Your task to perform on an android device: check storage Image 0: 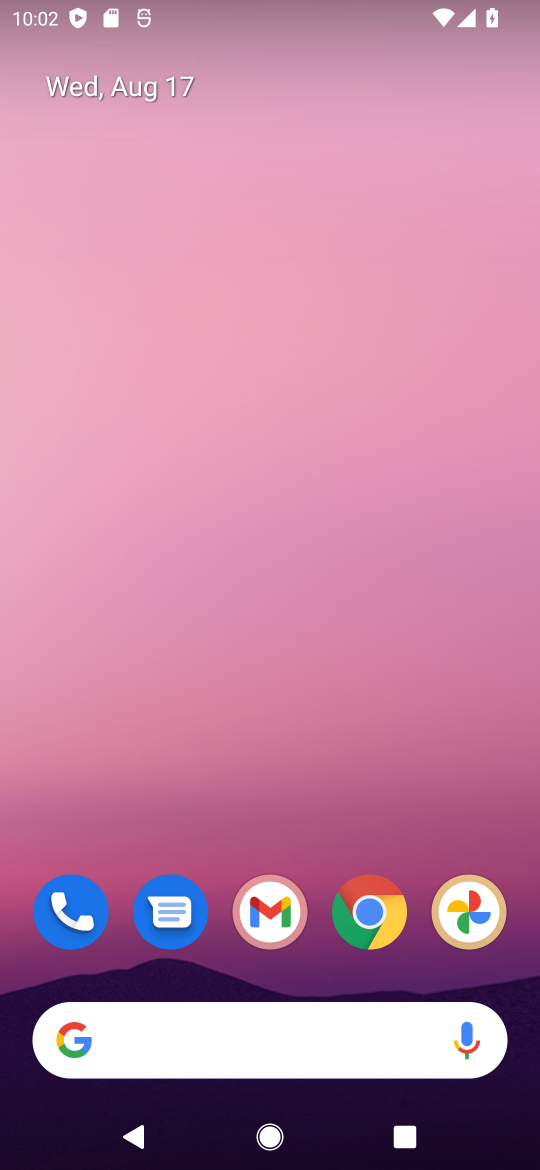
Step 0: drag from (276, 907) to (311, 348)
Your task to perform on an android device: check storage Image 1: 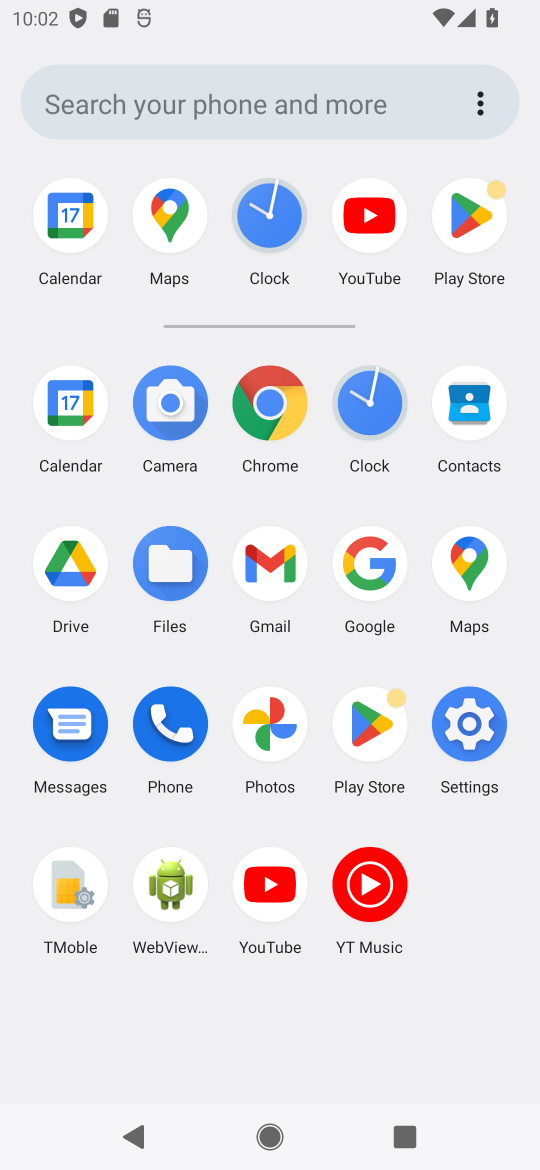
Step 1: click (461, 734)
Your task to perform on an android device: check storage Image 2: 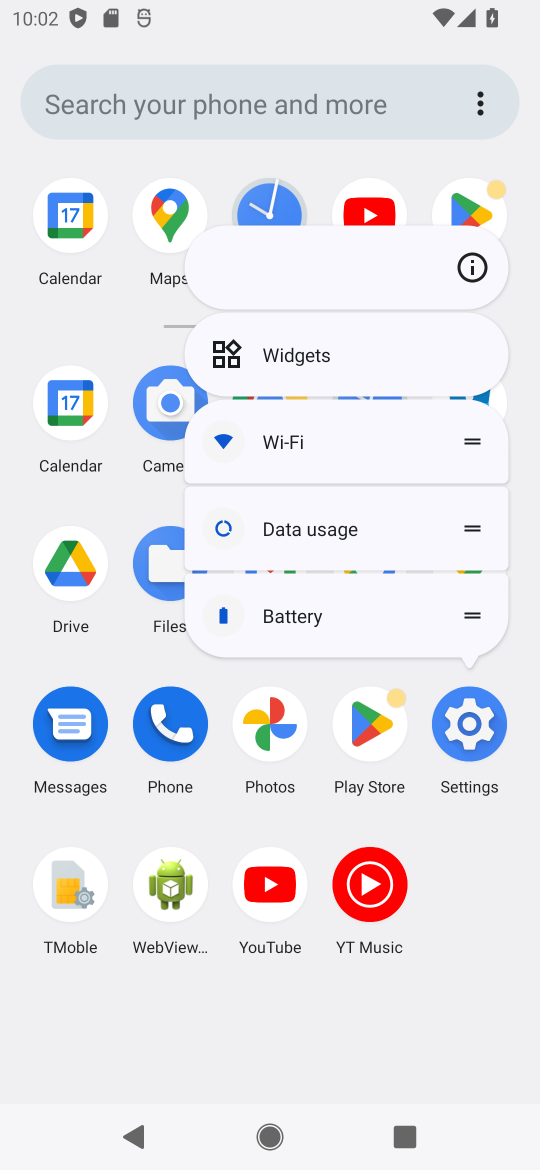
Step 2: click (461, 734)
Your task to perform on an android device: check storage Image 3: 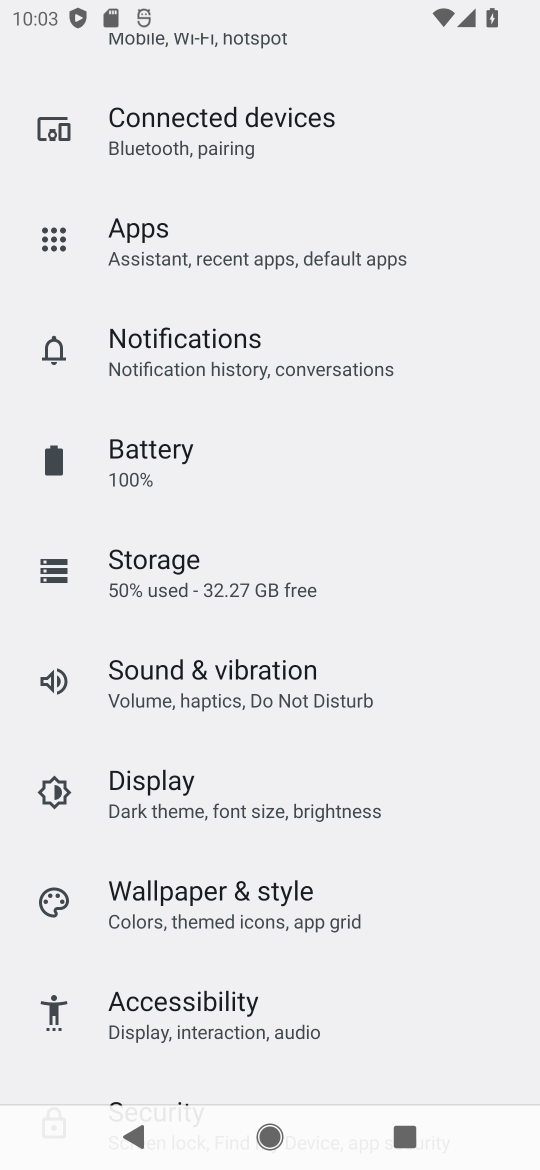
Step 3: click (177, 585)
Your task to perform on an android device: check storage Image 4: 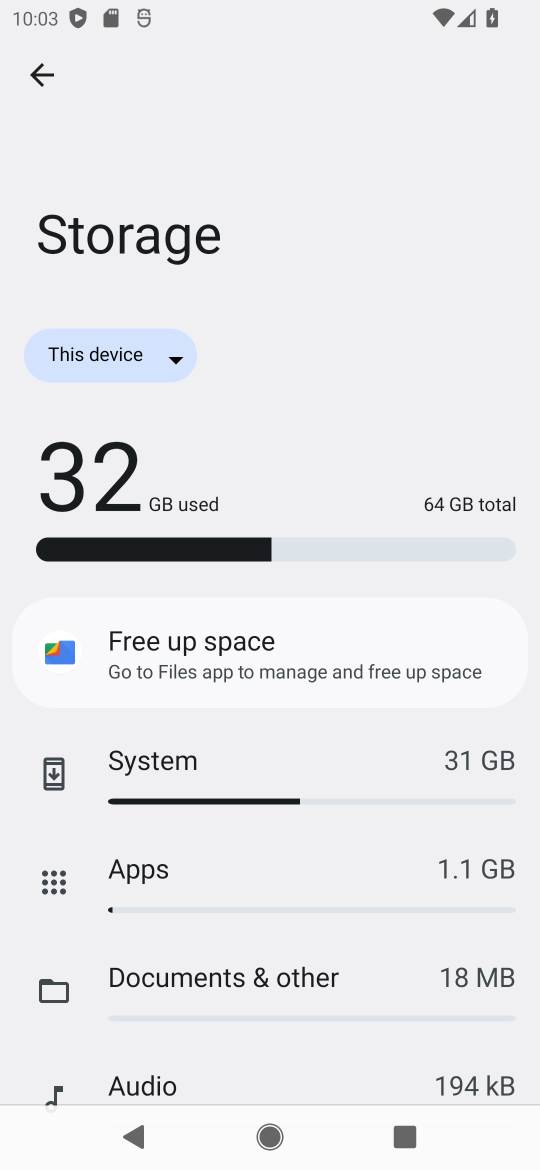
Step 4: task complete